Your task to perform on an android device: Go to eBay Image 0: 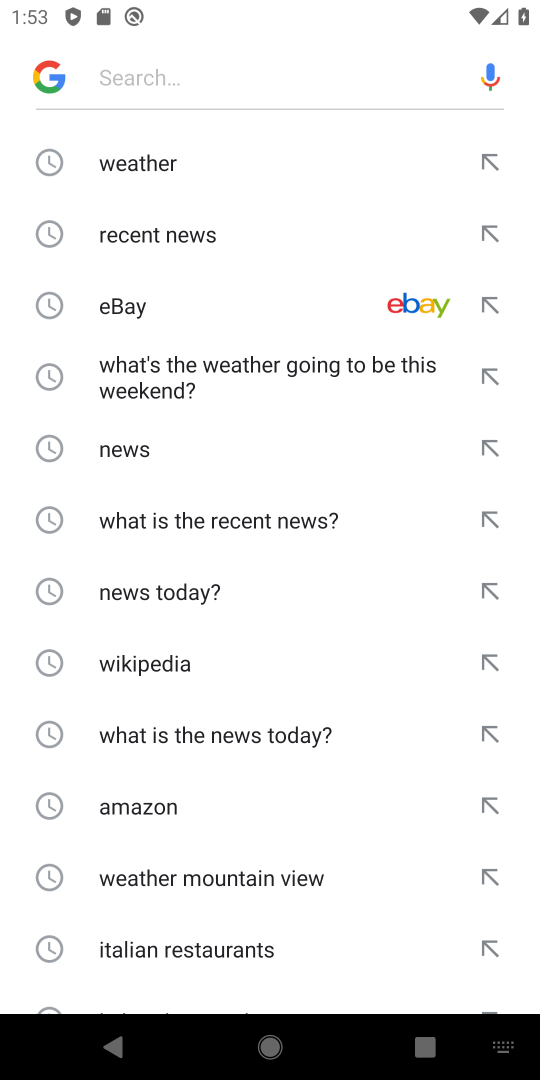
Step 0: click (118, 296)
Your task to perform on an android device: Go to eBay Image 1: 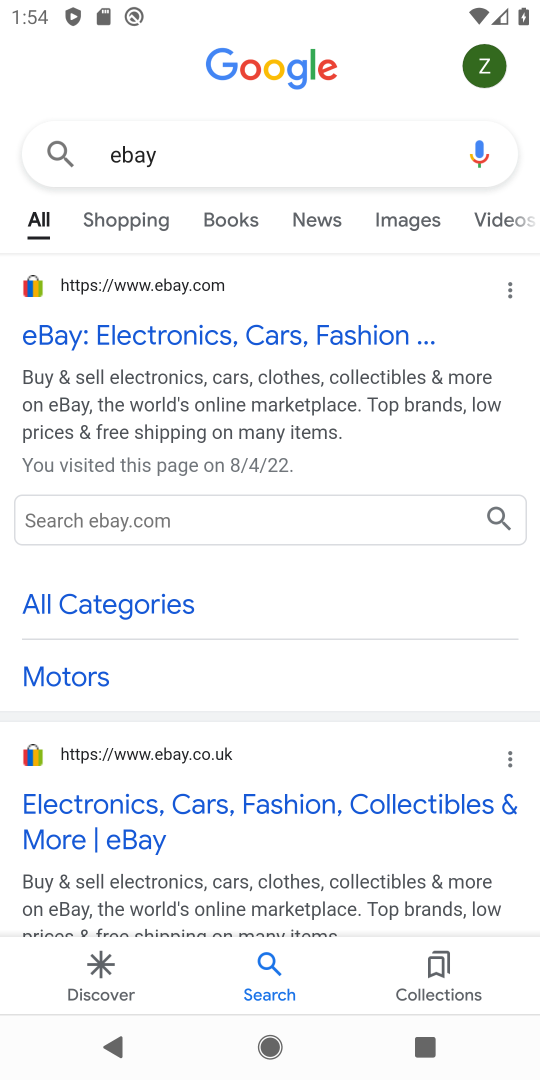
Step 1: click (108, 341)
Your task to perform on an android device: Go to eBay Image 2: 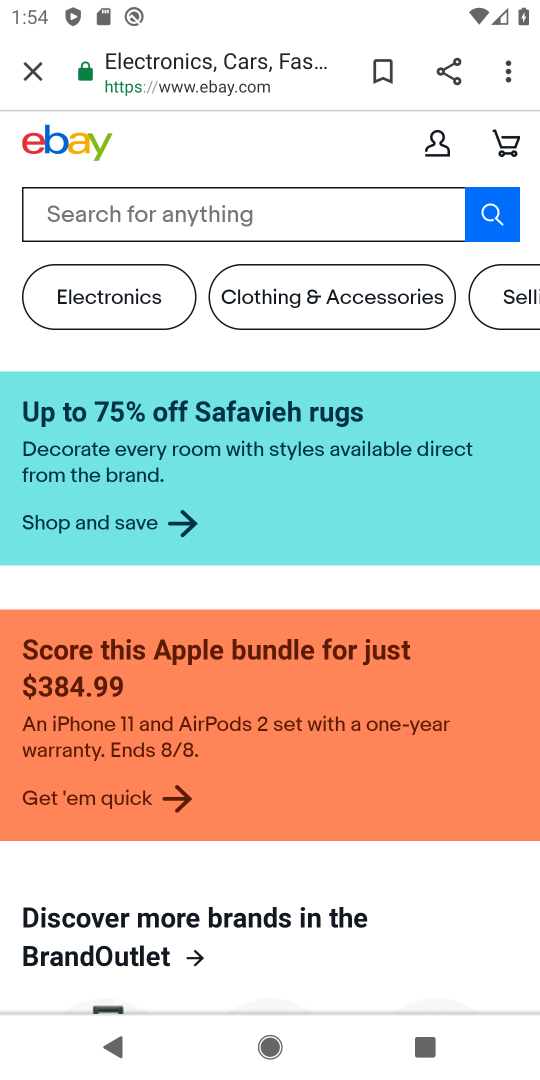
Step 2: task complete